Your task to perform on an android device: move a message to another label in the gmail app Image 0: 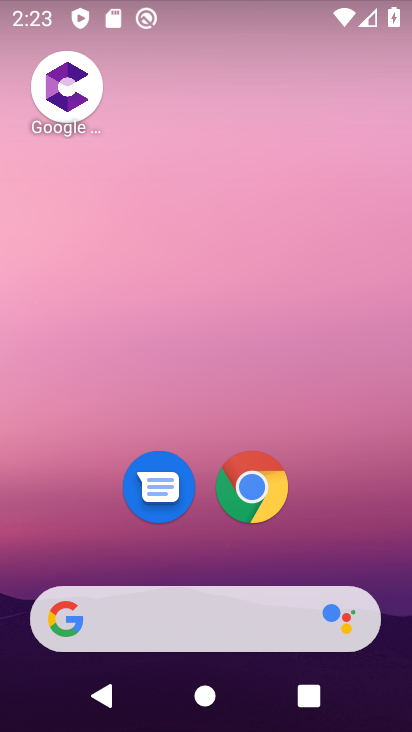
Step 0: drag from (64, 535) to (133, 52)
Your task to perform on an android device: move a message to another label in the gmail app Image 1: 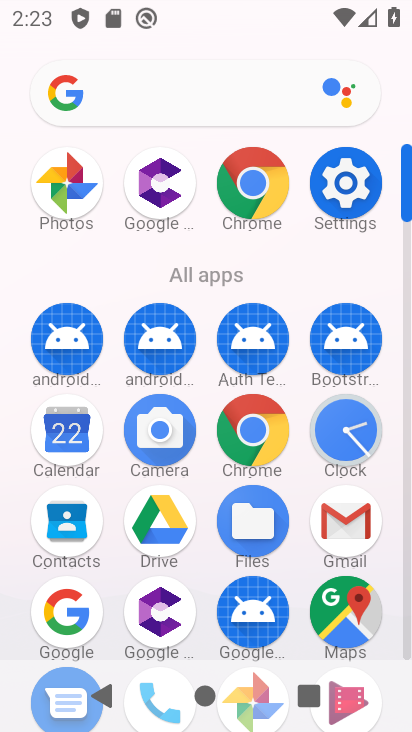
Step 1: click (330, 516)
Your task to perform on an android device: move a message to another label in the gmail app Image 2: 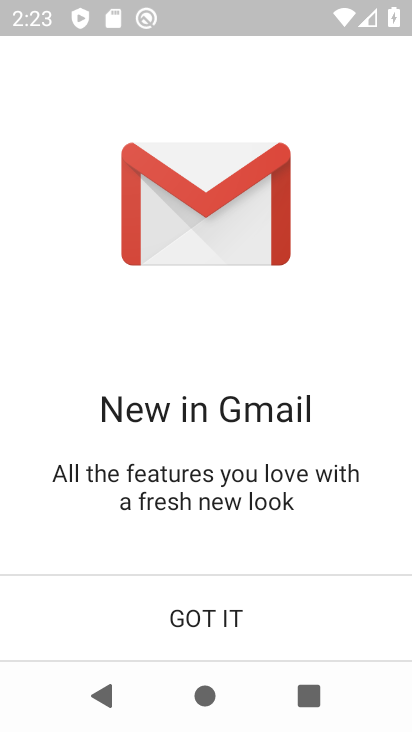
Step 2: click (222, 599)
Your task to perform on an android device: move a message to another label in the gmail app Image 3: 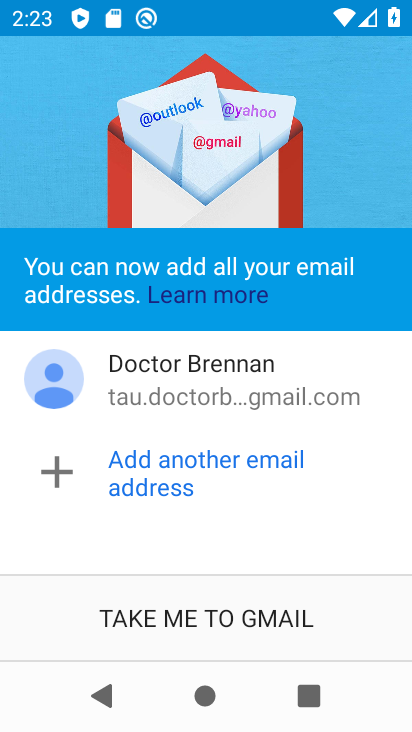
Step 3: click (214, 620)
Your task to perform on an android device: move a message to another label in the gmail app Image 4: 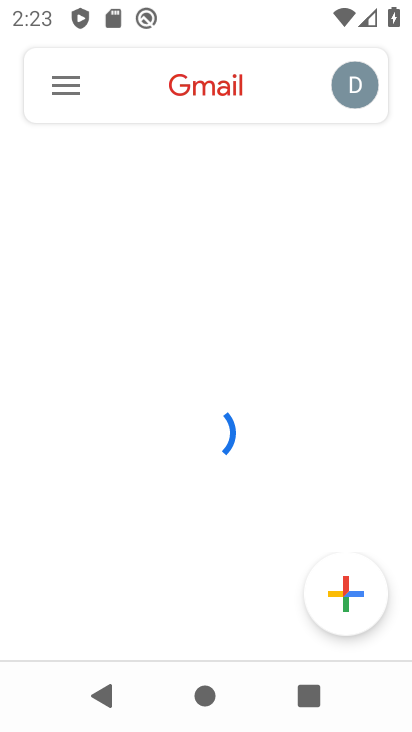
Step 4: click (60, 90)
Your task to perform on an android device: move a message to another label in the gmail app Image 5: 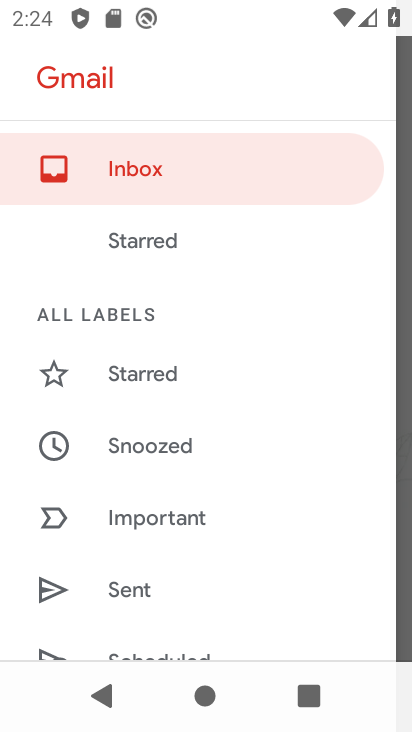
Step 5: drag from (182, 612) to (255, 159)
Your task to perform on an android device: move a message to another label in the gmail app Image 6: 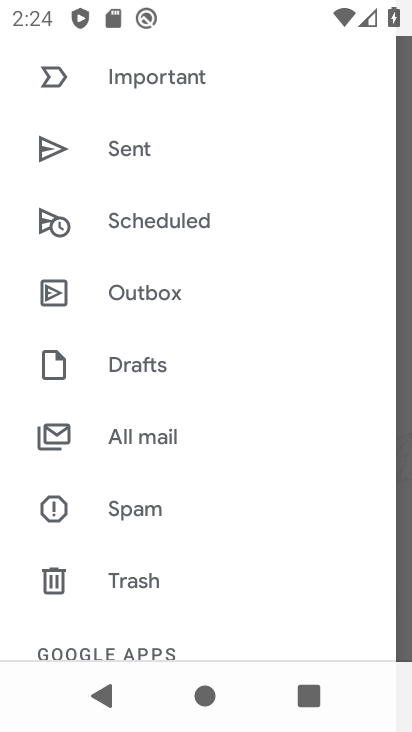
Step 6: click (170, 435)
Your task to perform on an android device: move a message to another label in the gmail app Image 7: 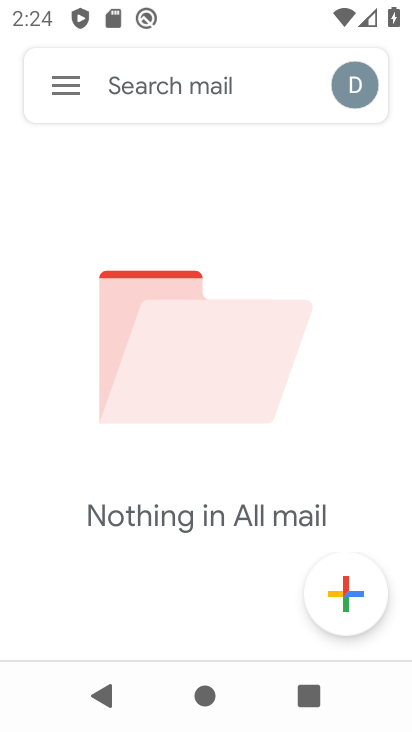
Step 7: task complete